Your task to perform on an android device: Open notification settings Image 0: 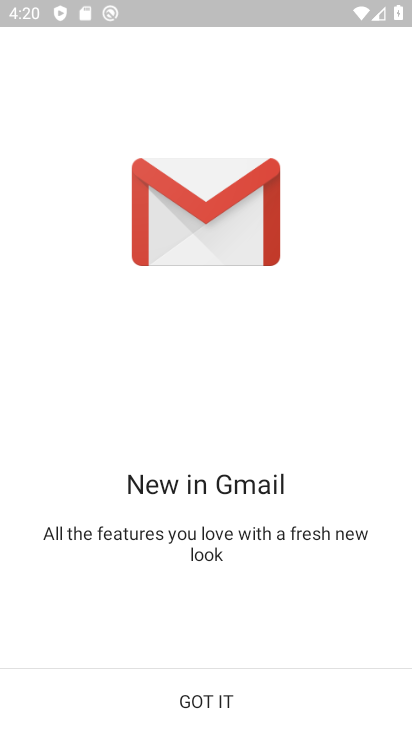
Step 0: press home button
Your task to perform on an android device: Open notification settings Image 1: 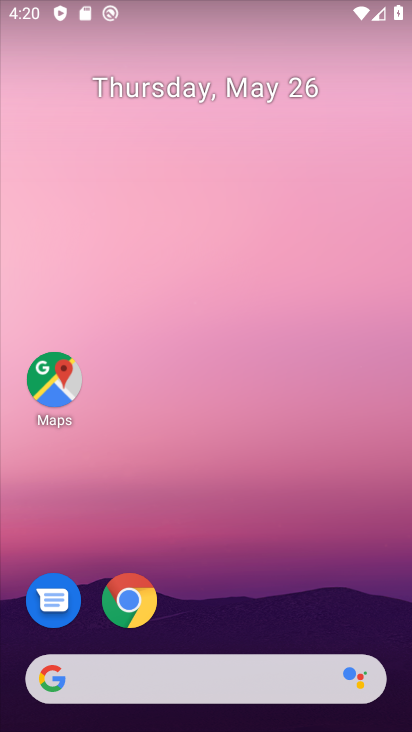
Step 1: drag from (278, 516) to (272, 234)
Your task to perform on an android device: Open notification settings Image 2: 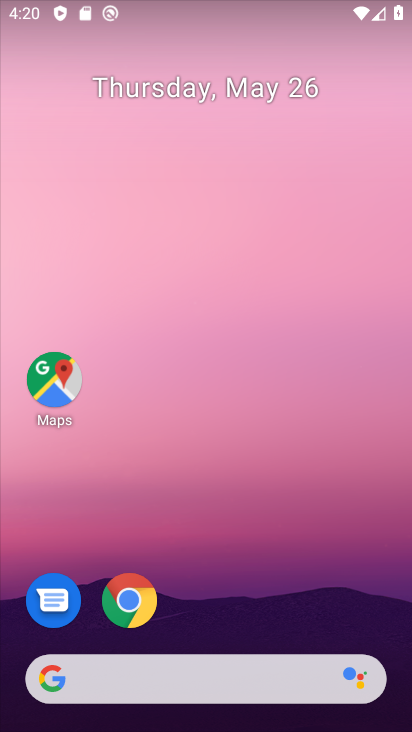
Step 2: drag from (264, 643) to (270, 300)
Your task to perform on an android device: Open notification settings Image 3: 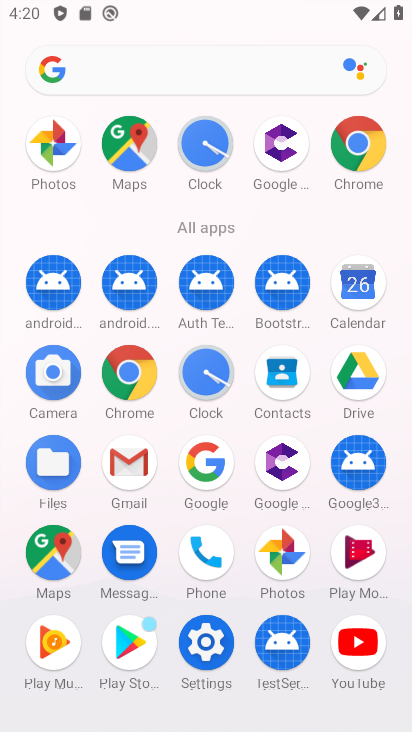
Step 3: click (208, 635)
Your task to perform on an android device: Open notification settings Image 4: 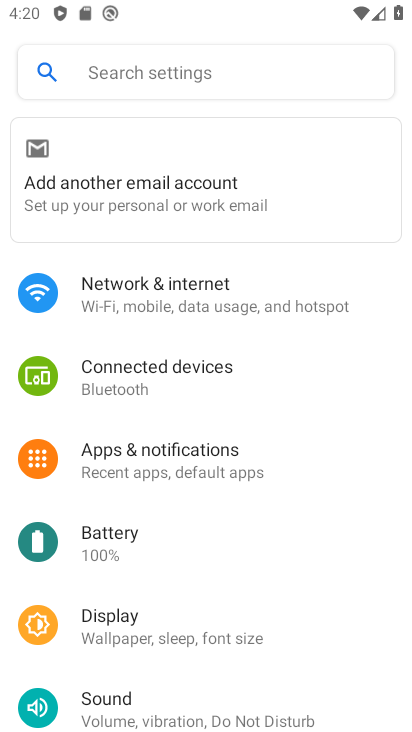
Step 4: click (191, 456)
Your task to perform on an android device: Open notification settings Image 5: 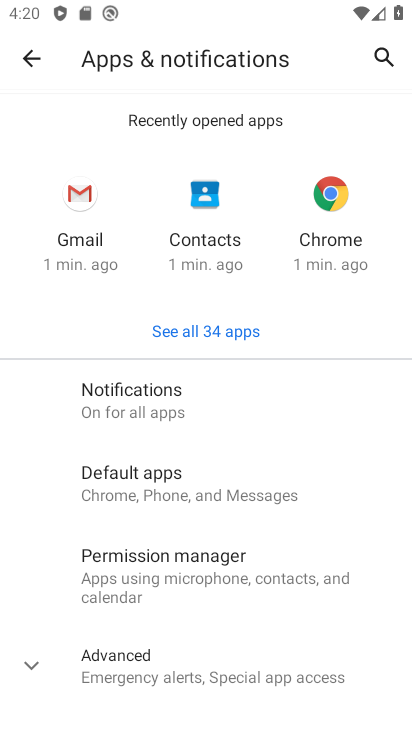
Step 5: click (231, 392)
Your task to perform on an android device: Open notification settings Image 6: 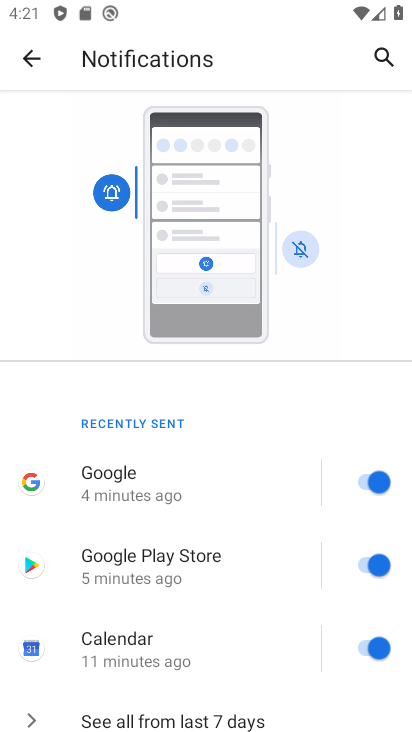
Step 6: task complete